Your task to perform on an android device: check out phone information Image 0: 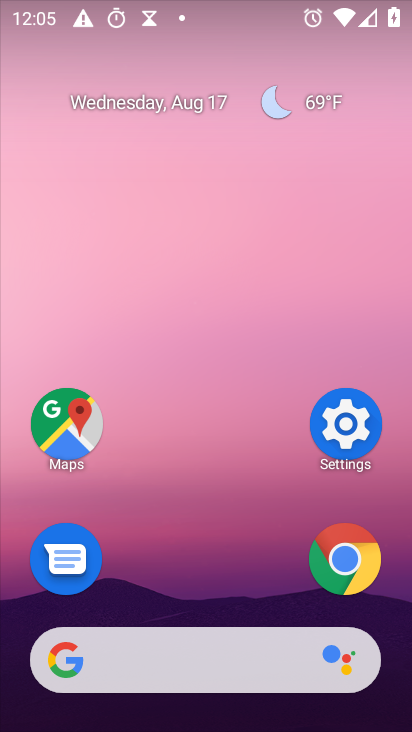
Step 0: click (339, 423)
Your task to perform on an android device: check out phone information Image 1: 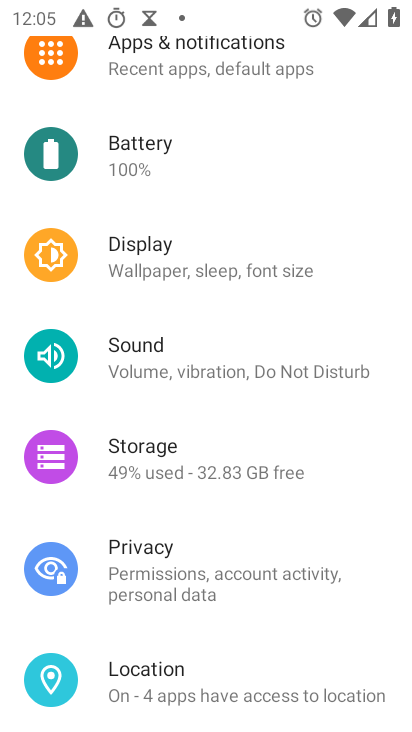
Step 1: drag from (251, 693) to (337, 8)
Your task to perform on an android device: check out phone information Image 2: 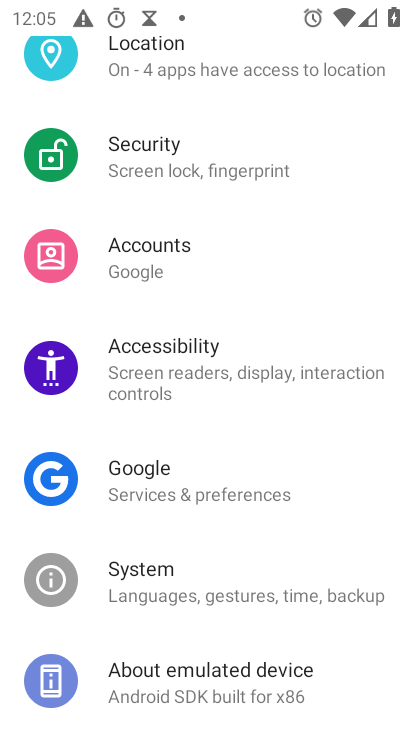
Step 2: drag from (222, 624) to (339, 173)
Your task to perform on an android device: check out phone information Image 3: 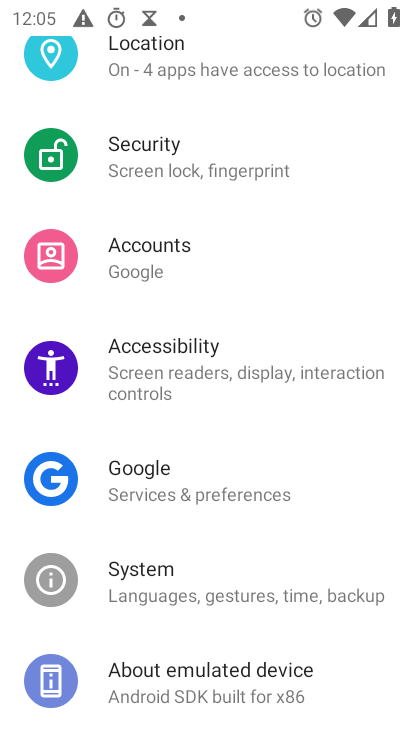
Step 3: click (213, 679)
Your task to perform on an android device: check out phone information Image 4: 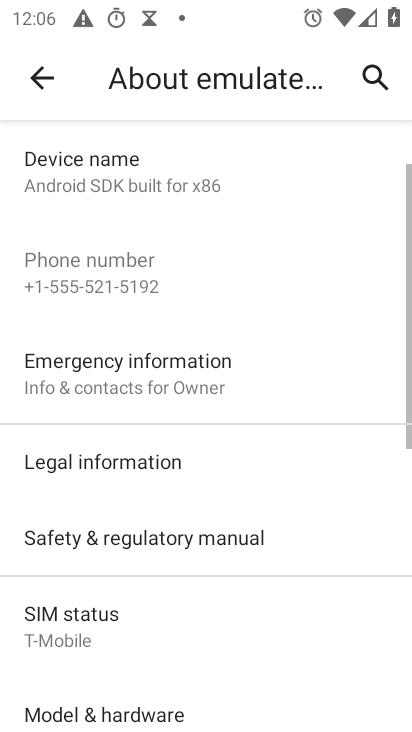
Step 4: task complete